Your task to perform on an android device: turn off data saver in the chrome app Image 0: 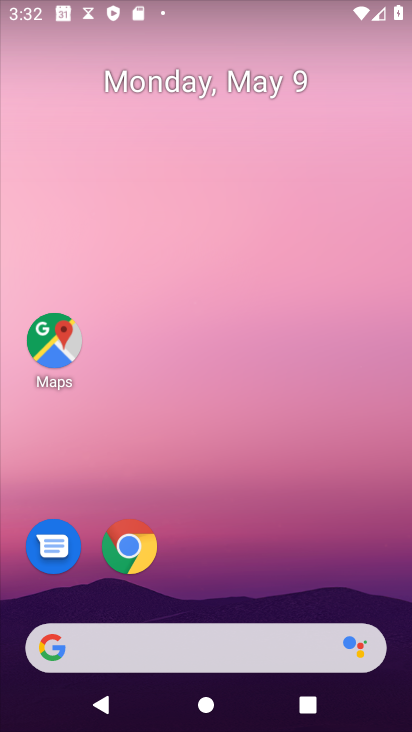
Step 0: drag from (340, 543) to (302, 148)
Your task to perform on an android device: turn off data saver in the chrome app Image 1: 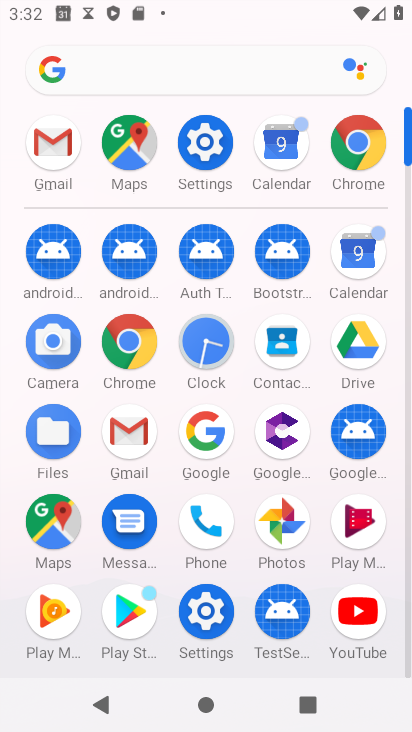
Step 1: click (345, 139)
Your task to perform on an android device: turn off data saver in the chrome app Image 2: 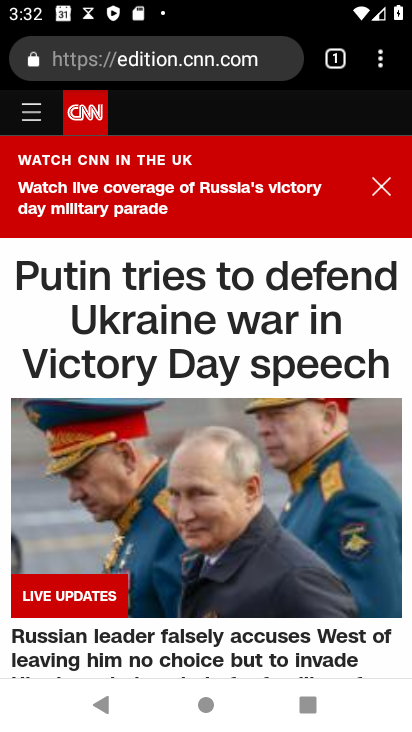
Step 2: drag from (382, 57) to (147, 562)
Your task to perform on an android device: turn off data saver in the chrome app Image 3: 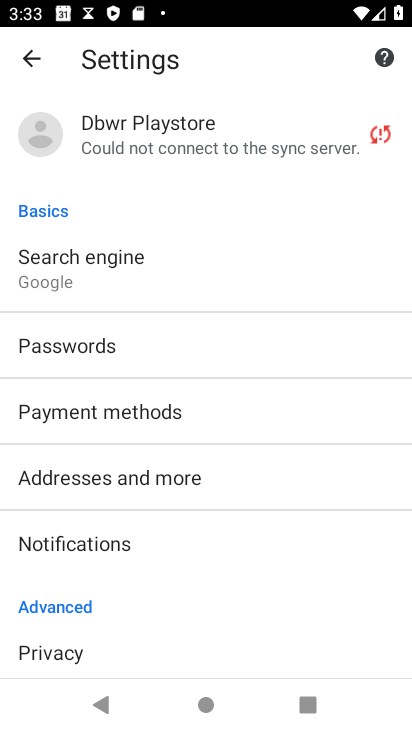
Step 3: drag from (151, 561) to (179, 322)
Your task to perform on an android device: turn off data saver in the chrome app Image 4: 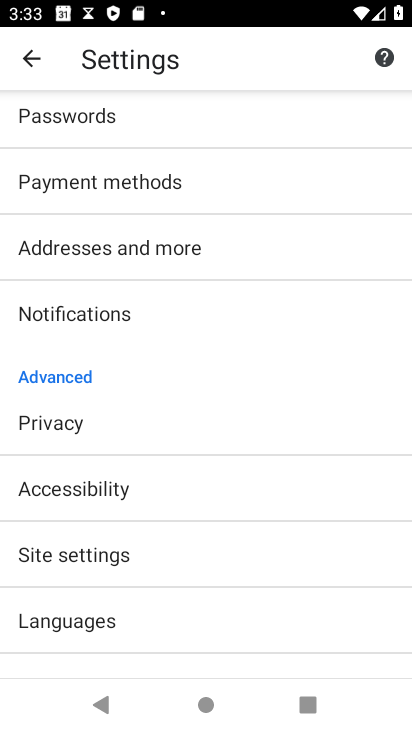
Step 4: drag from (146, 555) to (150, 310)
Your task to perform on an android device: turn off data saver in the chrome app Image 5: 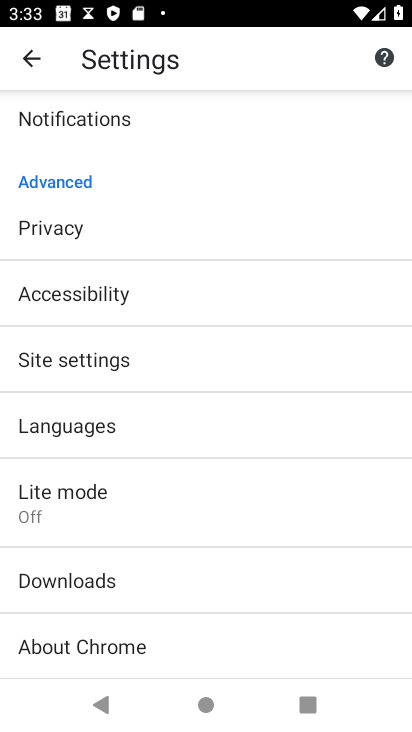
Step 5: click (95, 511)
Your task to perform on an android device: turn off data saver in the chrome app Image 6: 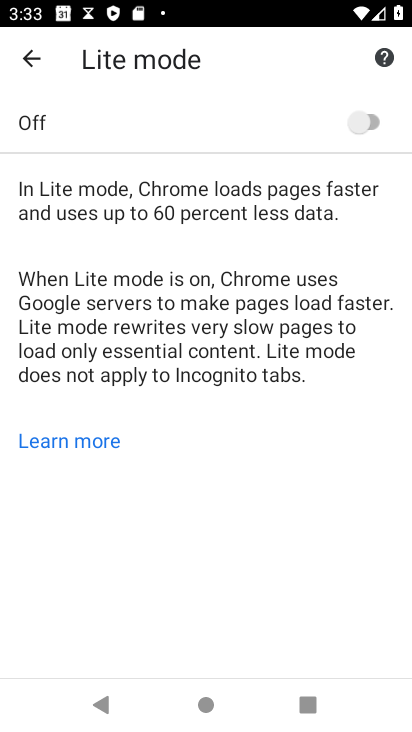
Step 6: task complete